Your task to perform on an android device: Open the web browser Image 0: 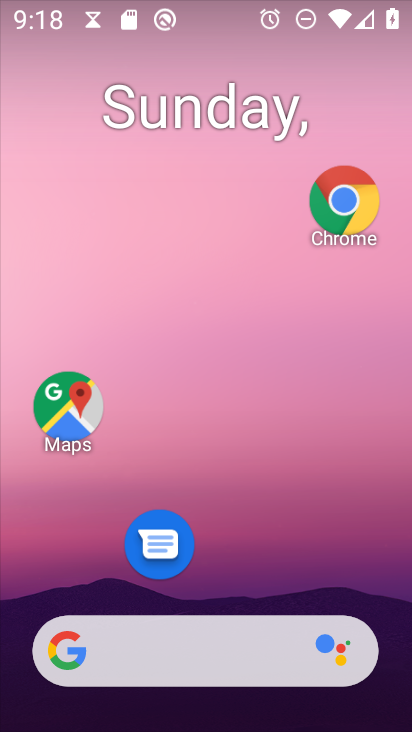
Step 0: click (336, 193)
Your task to perform on an android device: Open the web browser Image 1: 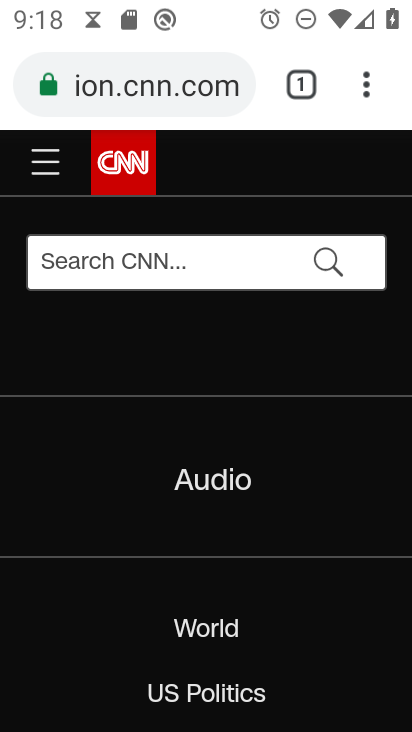
Step 1: task complete